Your task to perform on an android device: Open the Play Movies app and select the watchlist tab. Image 0: 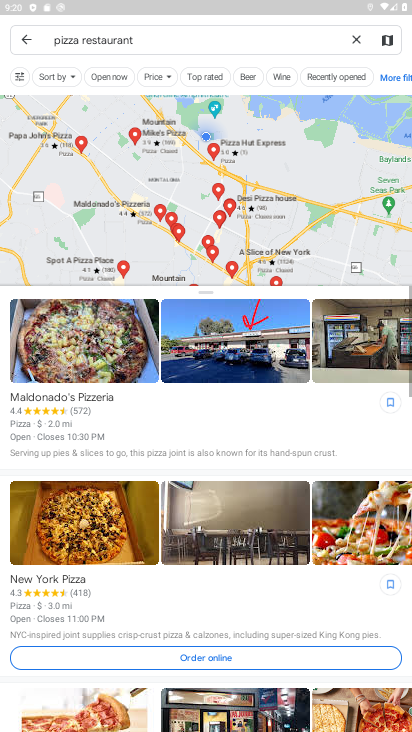
Step 0: press home button
Your task to perform on an android device: Open the Play Movies app and select the watchlist tab. Image 1: 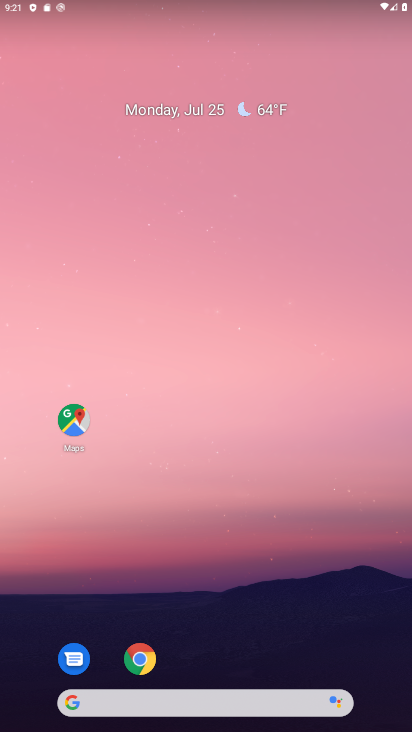
Step 1: drag from (335, 625) to (334, 133)
Your task to perform on an android device: Open the Play Movies app and select the watchlist tab. Image 2: 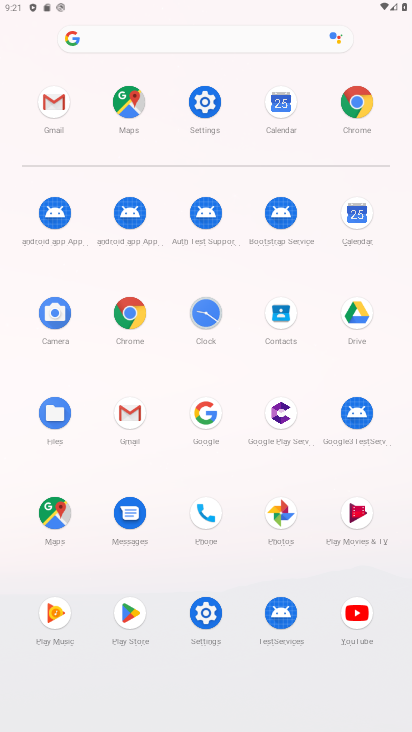
Step 2: click (363, 524)
Your task to perform on an android device: Open the Play Movies app and select the watchlist tab. Image 3: 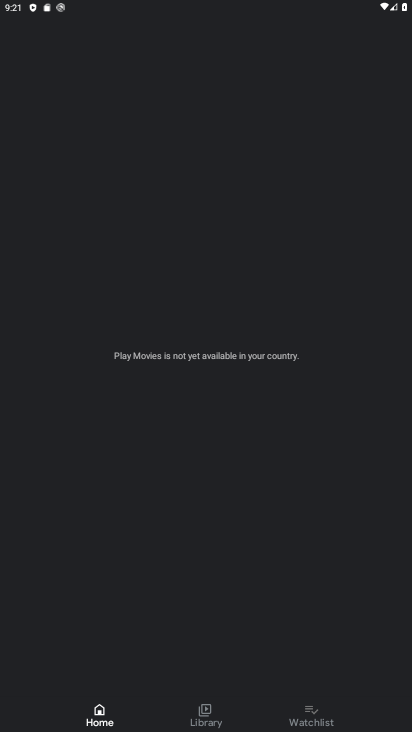
Step 3: click (307, 715)
Your task to perform on an android device: Open the Play Movies app and select the watchlist tab. Image 4: 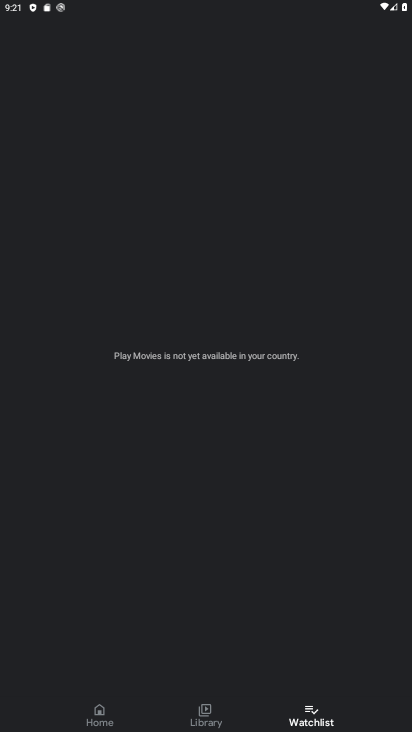
Step 4: task complete